Your task to perform on an android device: open chrome privacy settings Image 0: 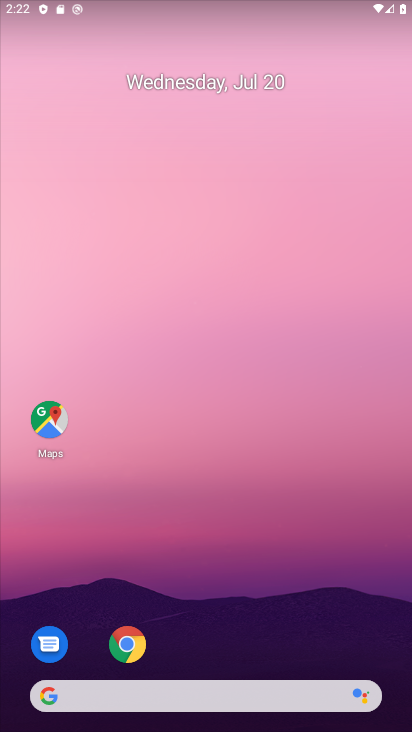
Step 0: click (133, 654)
Your task to perform on an android device: open chrome privacy settings Image 1: 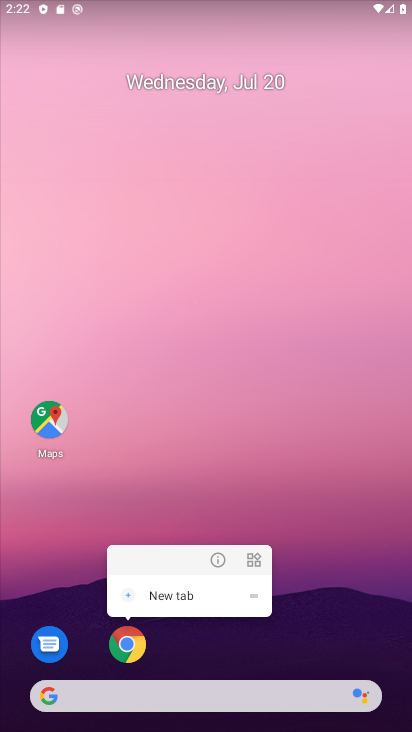
Step 1: click (133, 654)
Your task to perform on an android device: open chrome privacy settings Image 2: 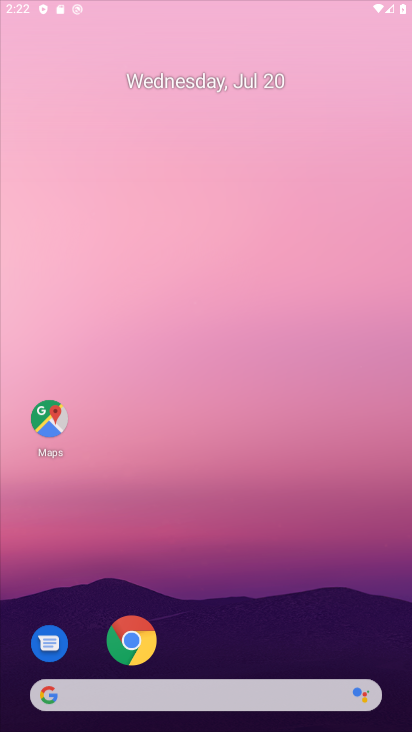
Step 2: click (133, 654)
Your task to perform on an android device: open chrome privacy settings Image 3: 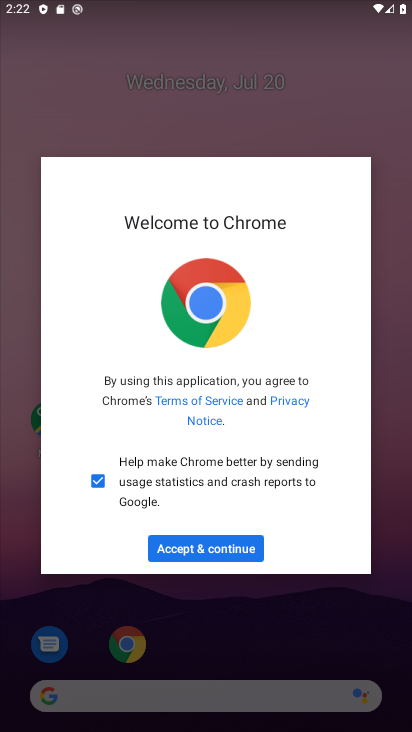
Step 3: click (224, 543)
Your task to perform on an android device: open chrome privacy settings Image 4: 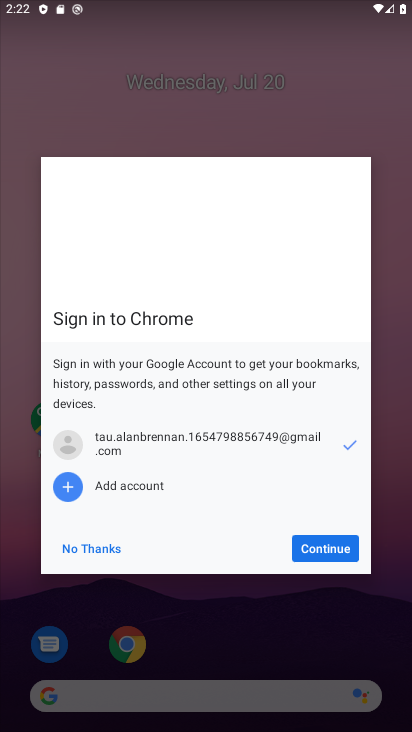
Step 4: click (334, 547)
Your task to perform on an android device: open chrome privacy settings Image 5: 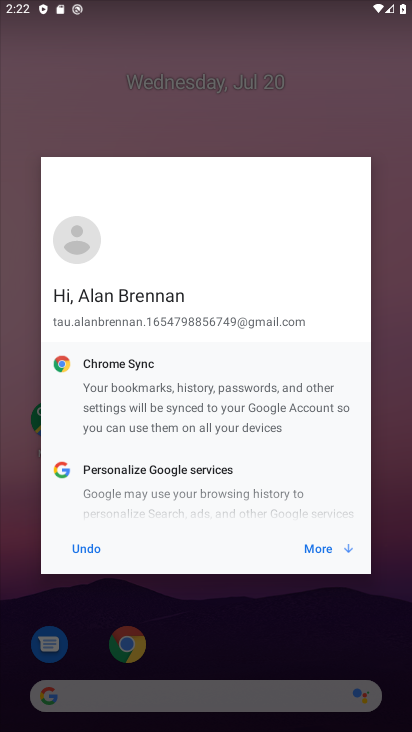
Step 5: click (334, 547)
Your task to perform on an android device: open chrome privacy settings Image 6: 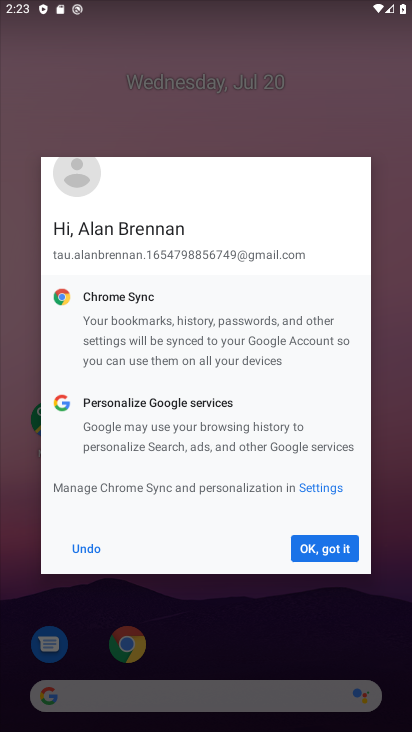
Step 6: click (334, 547)
Your task to perform on an android device: open chrome privacy settings Image 7: 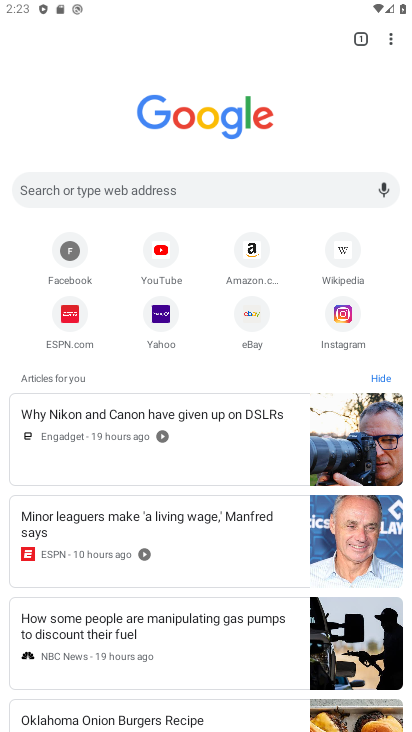
Step 7: task complete